Your task to perform on an android device: Search for Mexican restaurants on Maps Image 0: 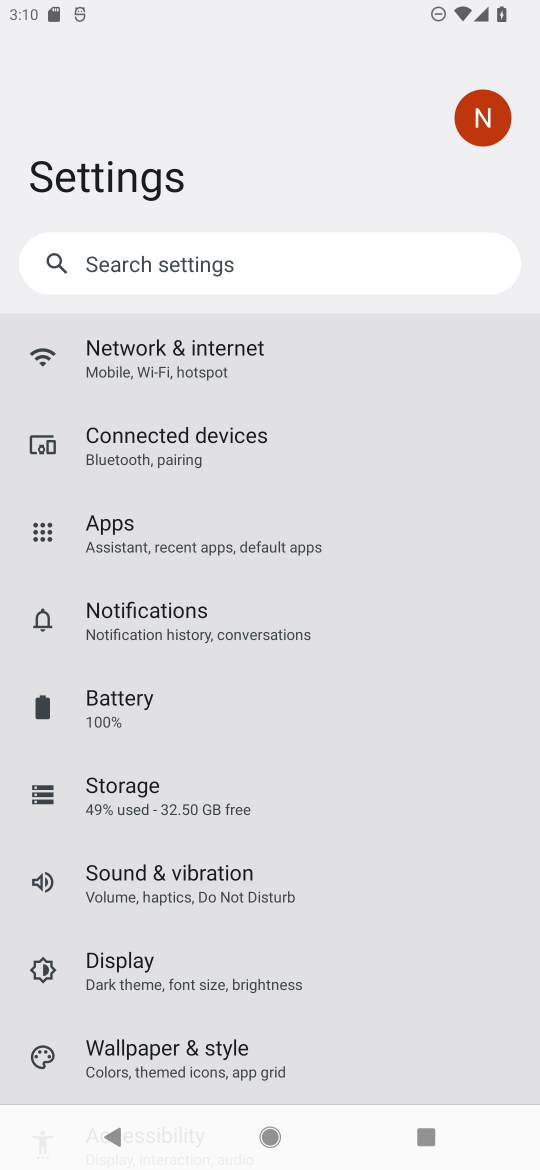
Step 0: press home button
Your task to perform on an android device: Search for Mexican restaurants on Maps Image 1: 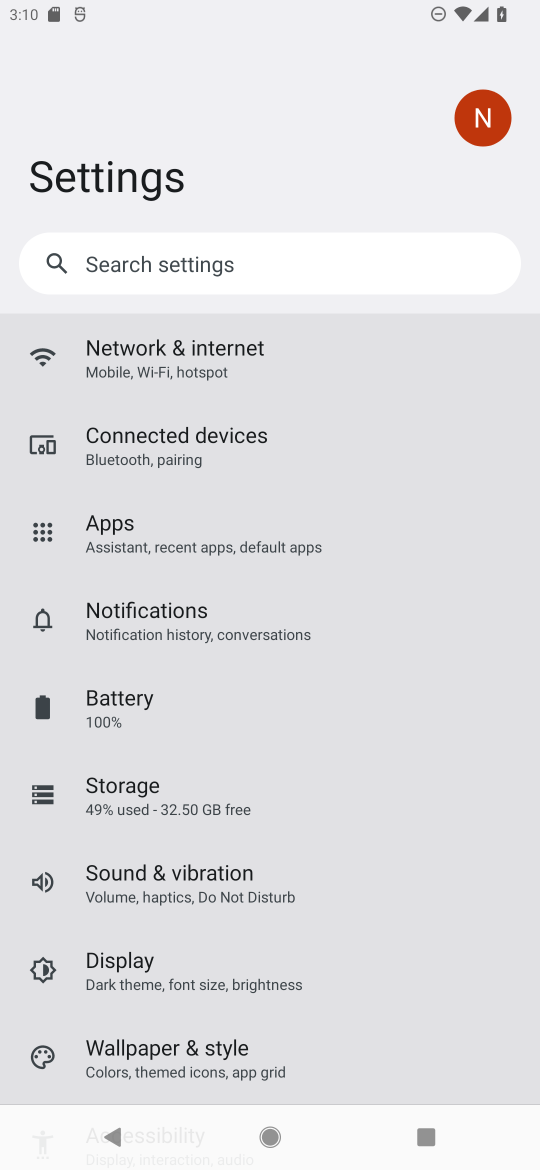
Step 1: press home button
Your task to perform on an android device: Search for Mexican restaurants on Maps Image 2: 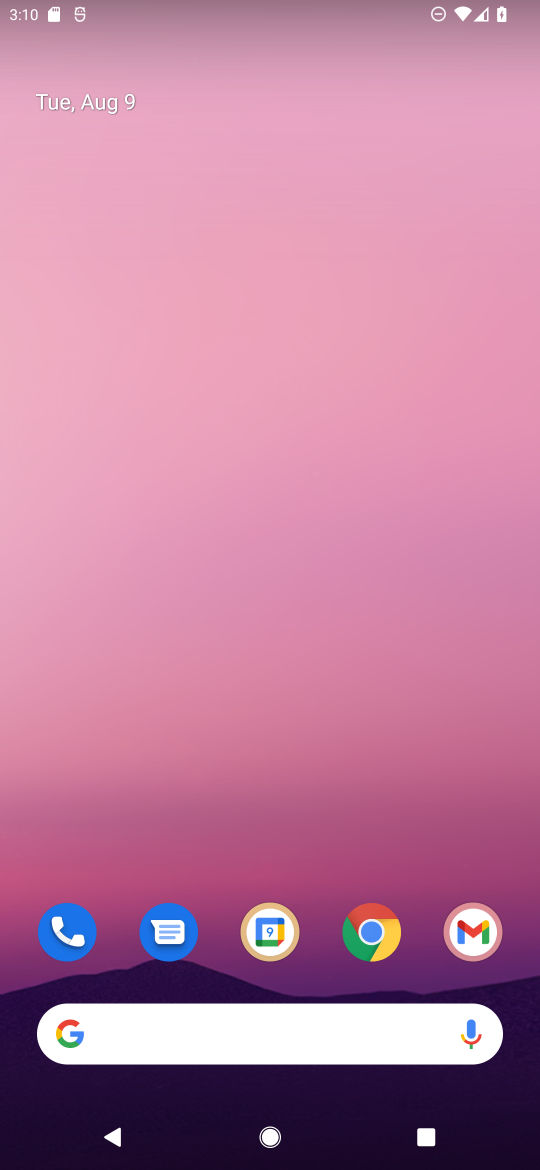
Step 2: drag from (63, 1147) to (226, 322)
Your task to perform on an android device: Search for Mexican restaurants on Maps Image 3: 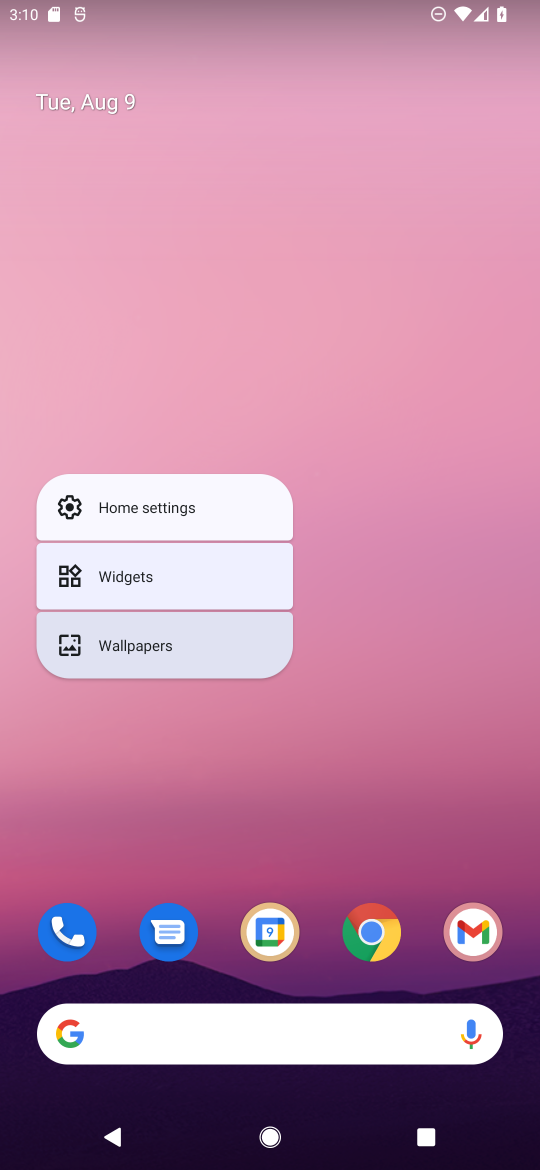
Step 3: click (39, 1091)
Your task to perform on an android device: Search for Mexican restaurants on Maps Image 4: 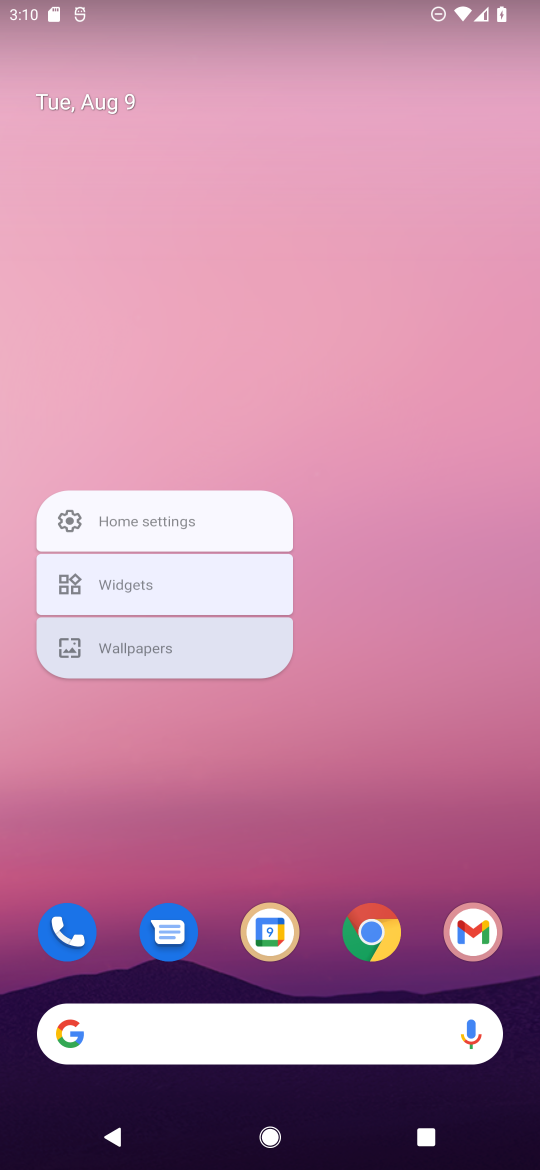
Step 4: drag from (39, 1091) to (157, 133)
Your task to perform on an android device: Search for Mexican restaurants on Maps Image 5: 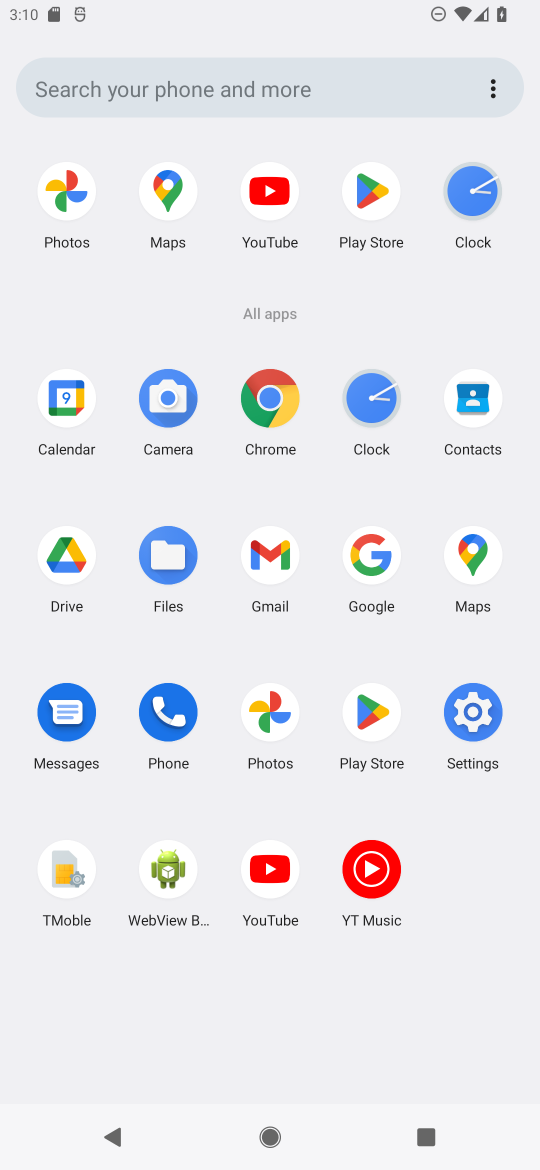
Step 5: click (188, 198)
Your task to perform on an android device: Search for Mexican restaurants on Maps Image 6: 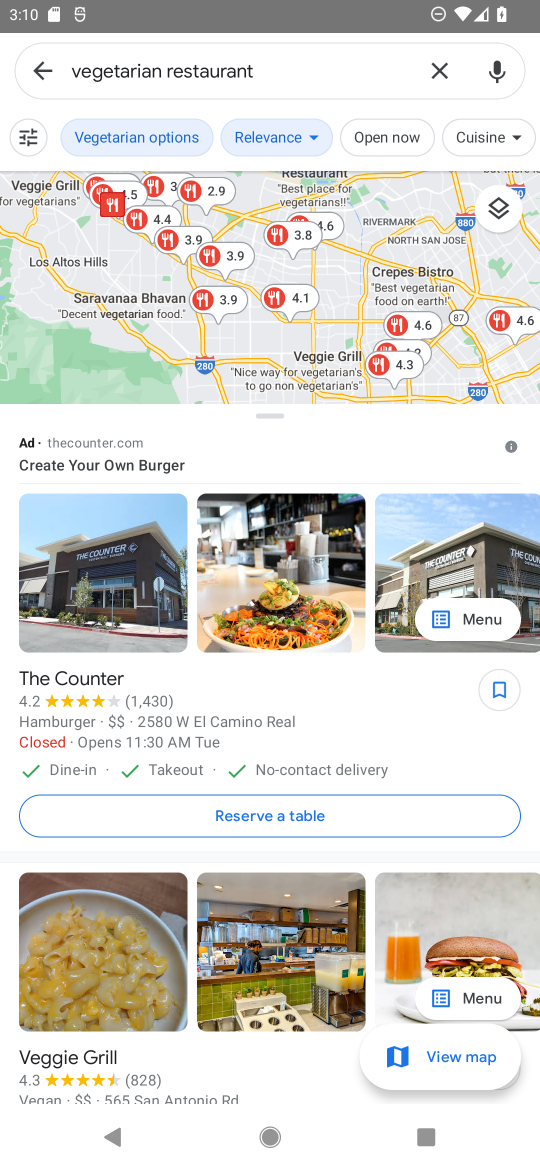
Step 6: click (39, 75)
Your task to perform on an android device: Search for Mexican restaurants on Maps Image 7: 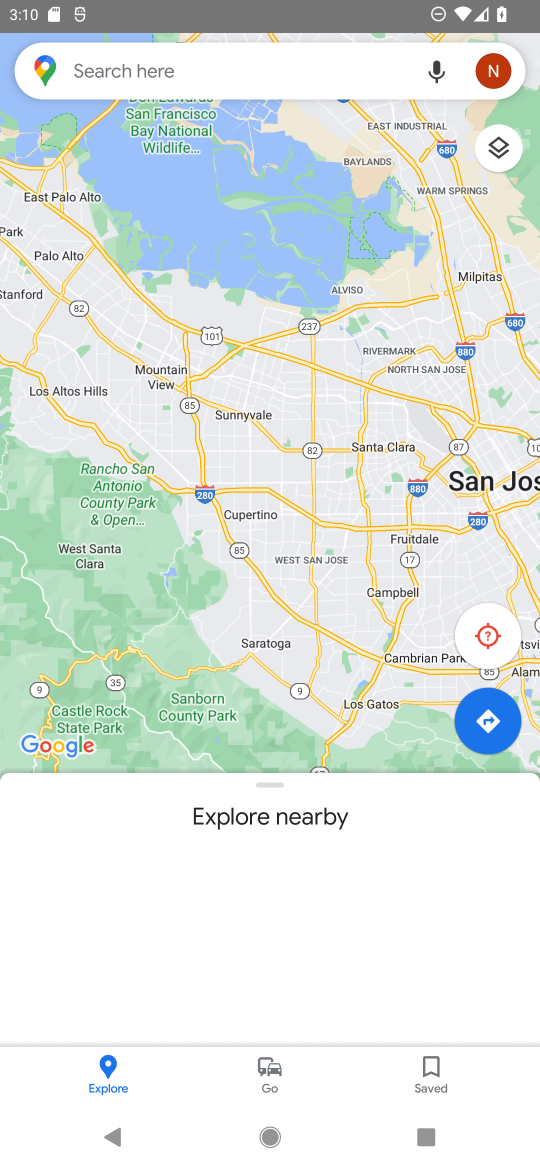
Step 7: click (104, 64)
Your task to perform on an android device: Search for Mexican restaurants on Maps Image 8: 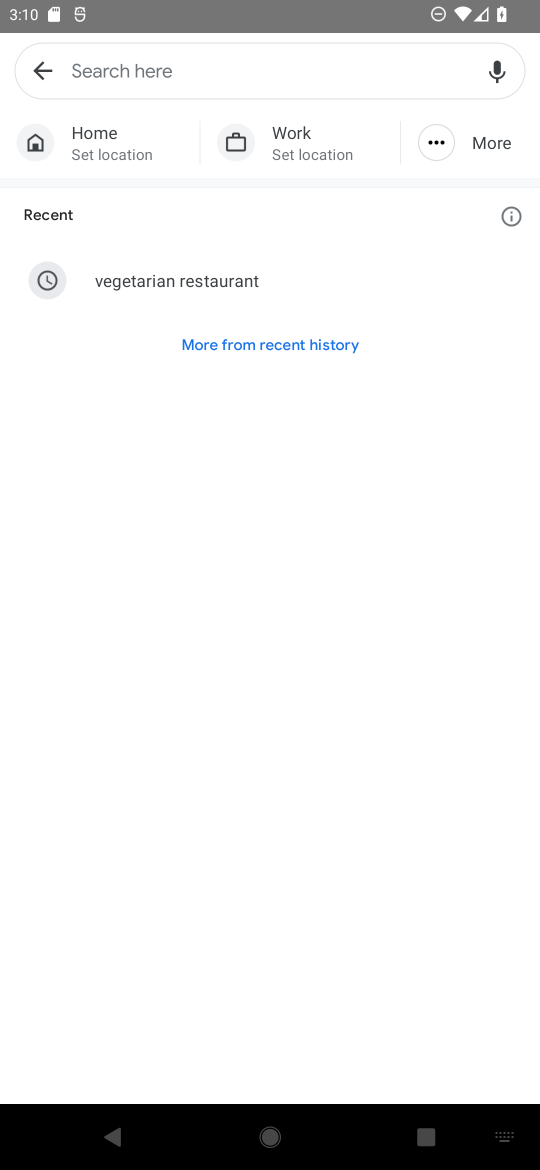
Step 8: type "Mexican restaurants"
Your task to perform on an android device: Search for Mexican restaurants on Maps Image 9: 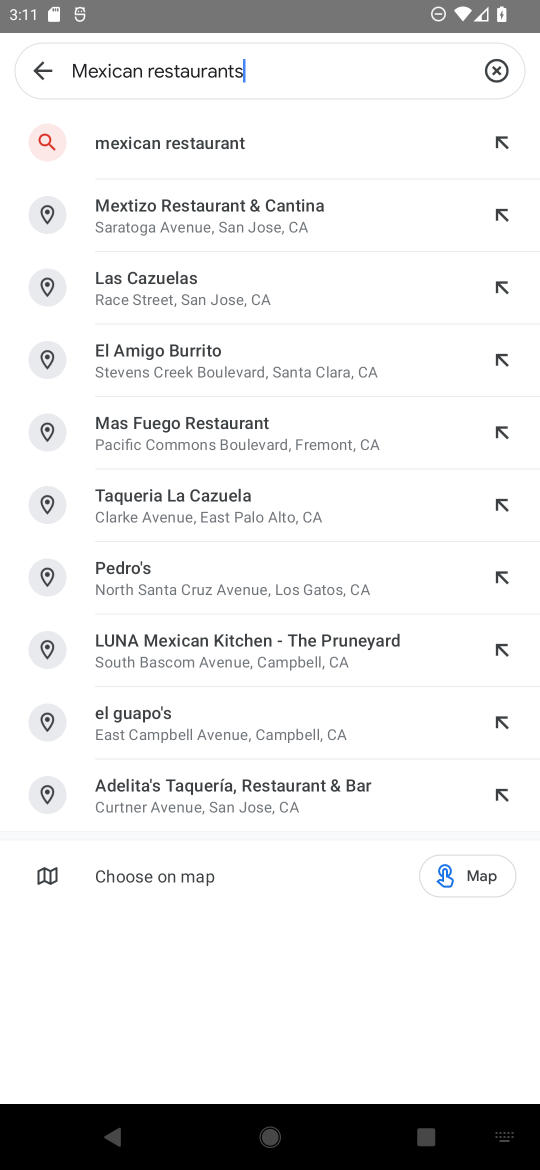
Step 9: click (178, 149)
Your task to perform on an android device: Search for Mexican restaurants on Maps Image 10: 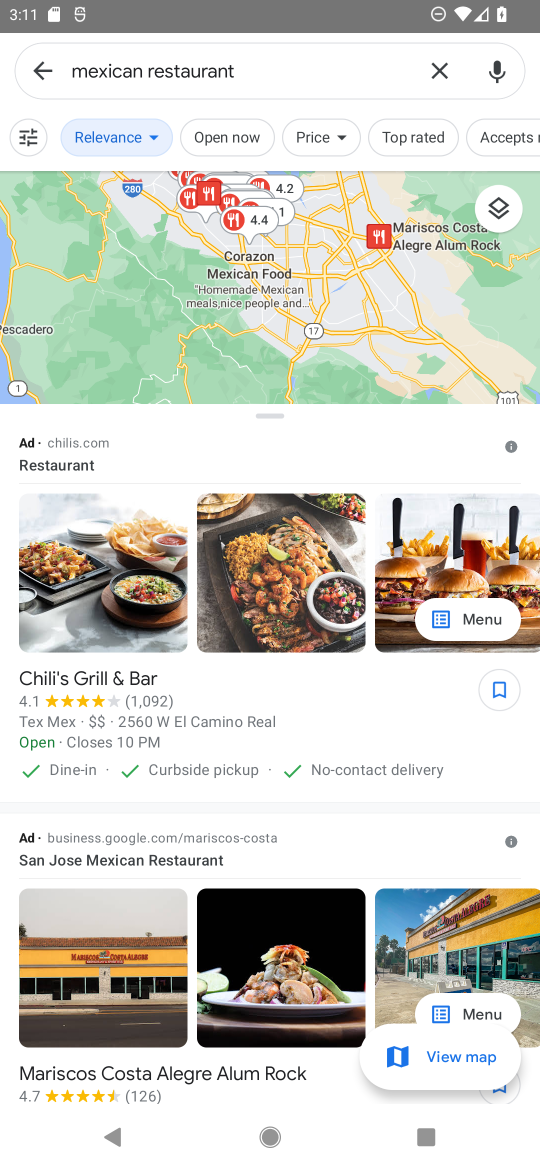
Step 10: task complete